Your task to perform on an android device: turn notification dots on Image 0: 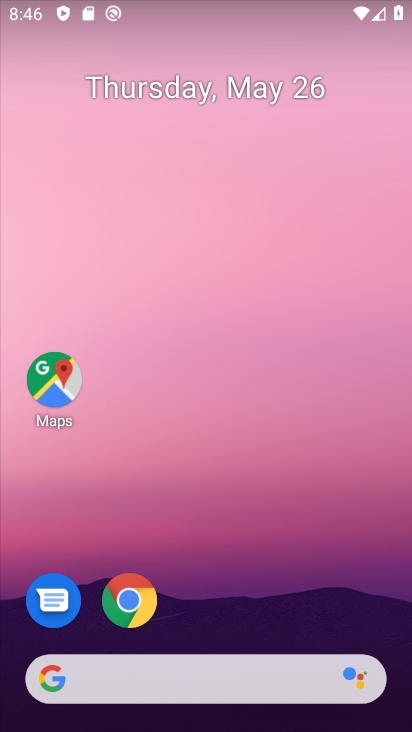
Step 0: drag from (214, 617) to (313, 22)
Your task to perform on an android device: turn notification dots on Image 1: 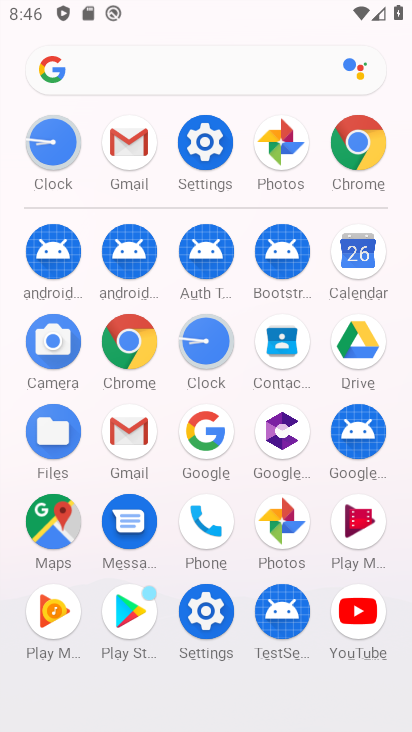
Step 1: click (213, 141)
Your task to perform on an android device: turn notification dots on Image 2: 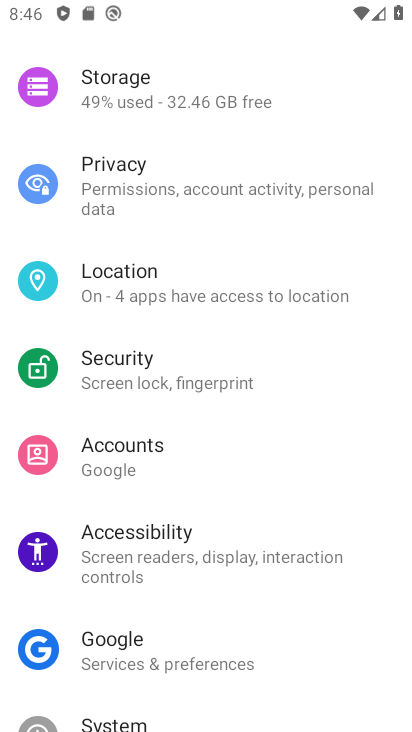
Step 2: drag from (126, 154) to (113, 637)
Your task to perform on an android device: turn notification dots on Image 3: 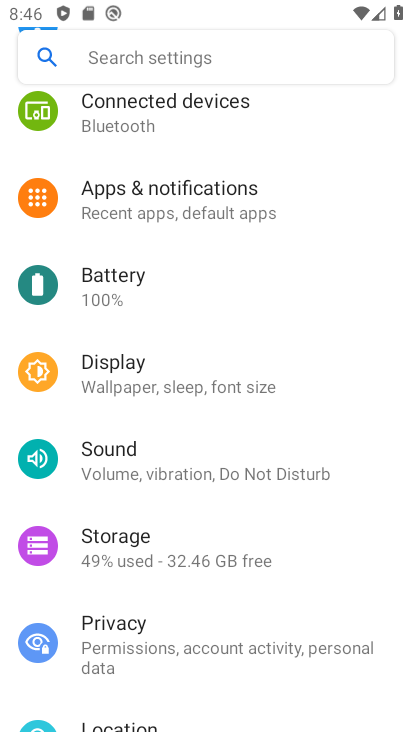
Step 3: click (154, 181)
Your task to perform on an android device: turn notification dots on Image 4: 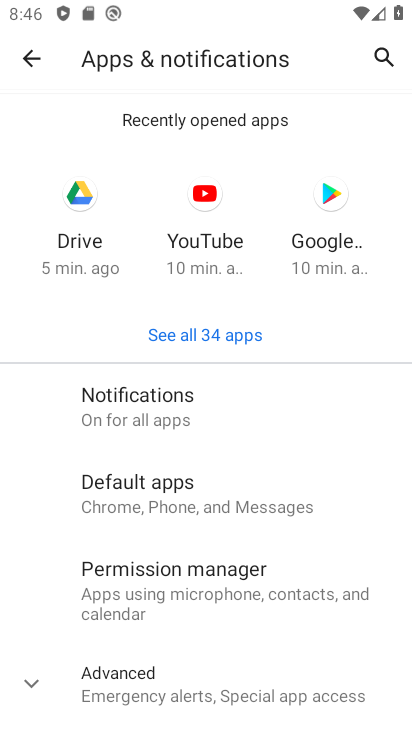
Step 4: click (112, 683)
Your task to perform on an android device: turn notification dots on Image 5: 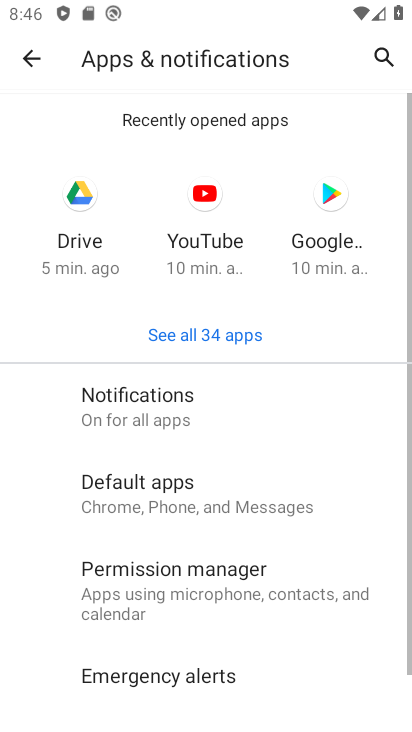
Step 5: drag from (112, 683) to (181, 243)
Your task to perform on an android device: turn notification dots on Image 6: 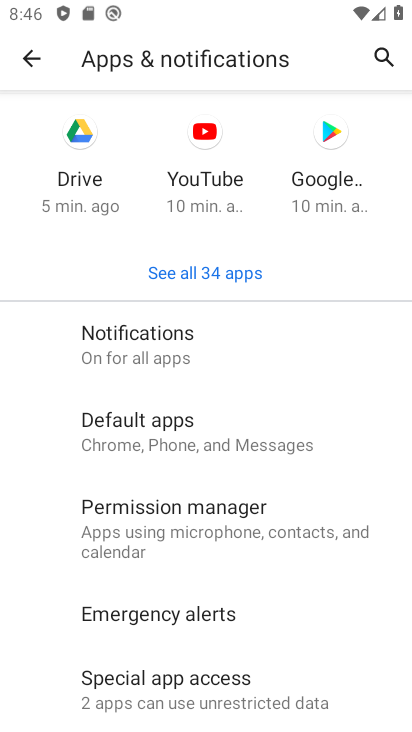
Step 6: click (152, 348)
Your task to perform on an android device: turn notification dots on Image 7: 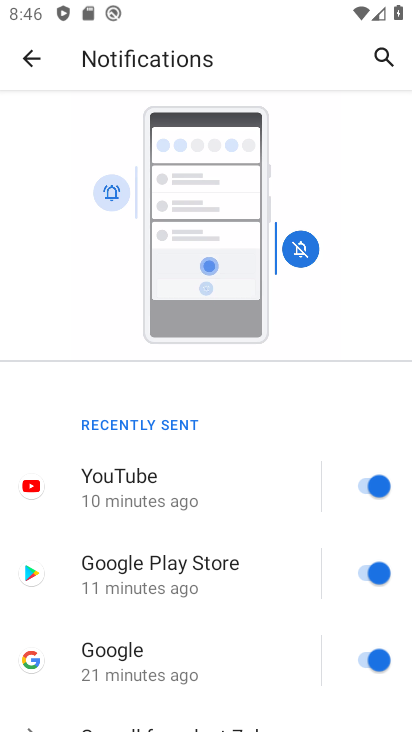
Step 7: drag from (148, 619) to (230, 142)
Your task to perform on an android device: turn notification dots on Image 8: 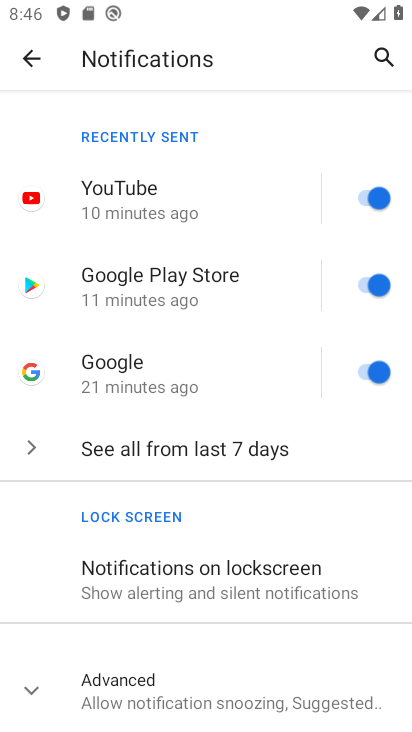
Step 8: click (157, 675)
Your task to perform on an android device: turn notification dots on Image 9: 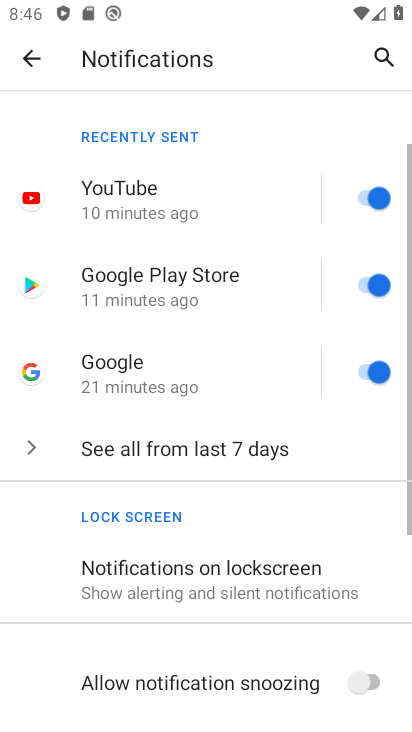
Step 9: task complete